Your task to perform on an android device: Open Google Maps and go to "Timeline" Image 0: 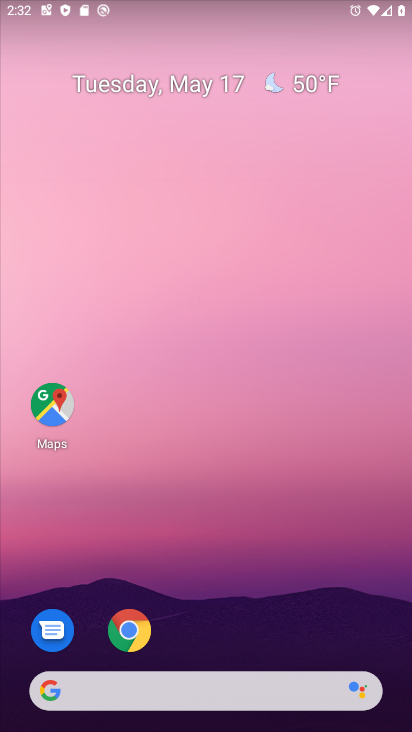
Step 0: click (44, 402)
Your task to perform on an android device: Open Google Maps and go to "Timeline" Image 1: 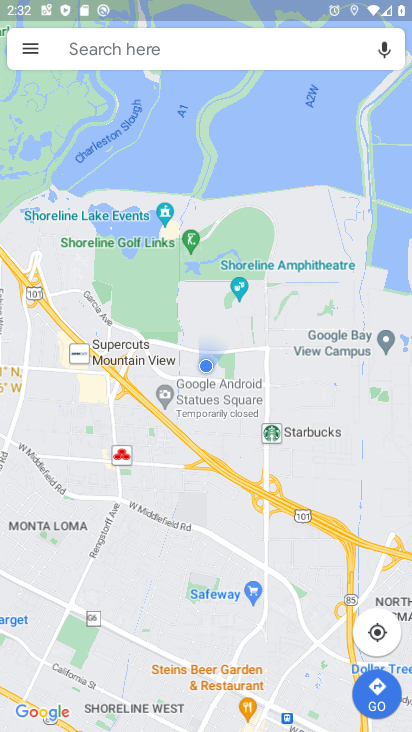
Step 1: click (32, 45)
Your task to perform on an android device: Open Google Maps and go to "Timeline" Image 2: 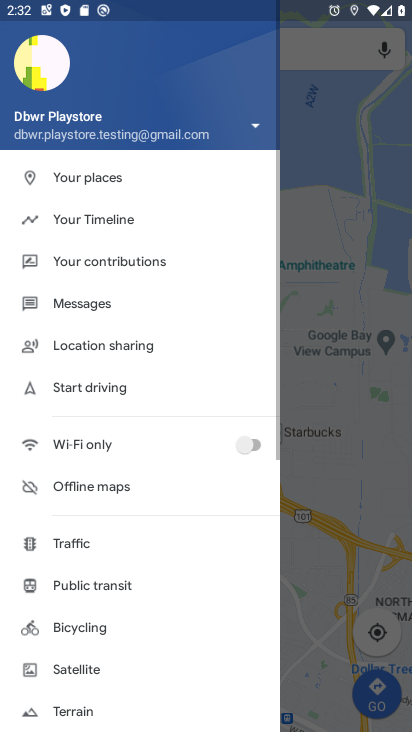
Step 2: click (135, 226)
Your task to perform on an android device: Open Google Maps and go to "Timeline" Image 3: 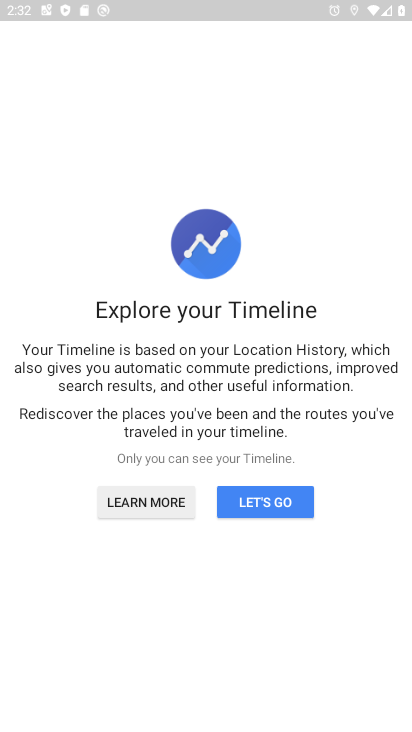
Step 3: click (262, 498)
Your task to perform on an android device: Open Google Maps and go to "Timeline" Image 4: 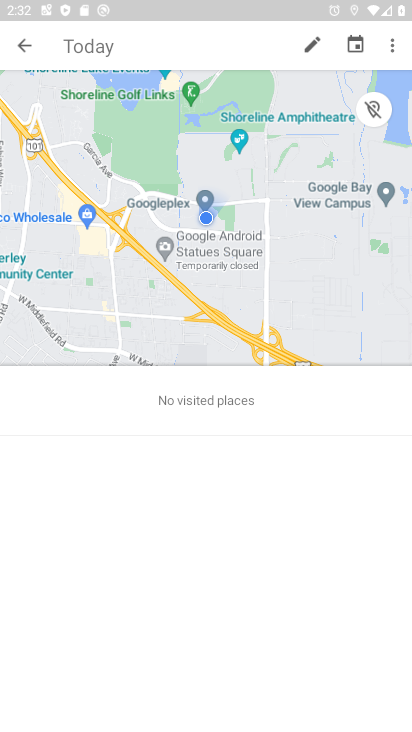
Step 4: task complete